Your task to perform on an android device: turn off notifications in google photos Image 0: 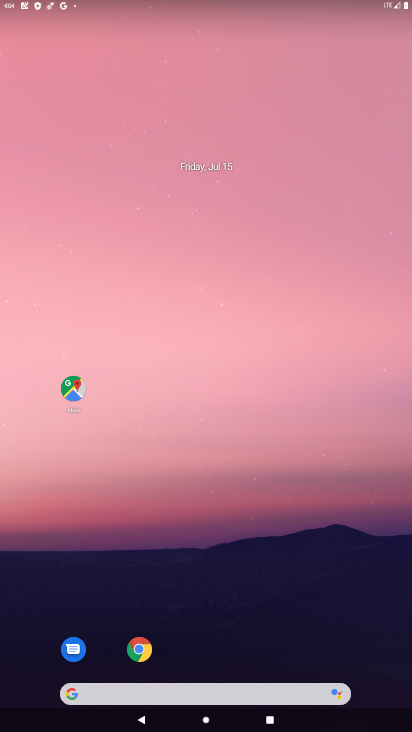
Step 0: drag from (213, 454) to (188, 178)
Your task to perform on an android device: turn off notifications in google photos Image 1: 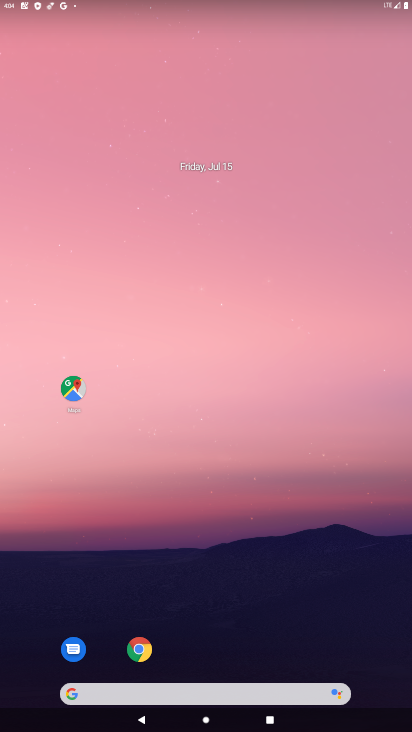
Step 1: drag from (204, 647) to (155, 121)
Your task to perform on an android device: turn off notifications in google photos Image 2: 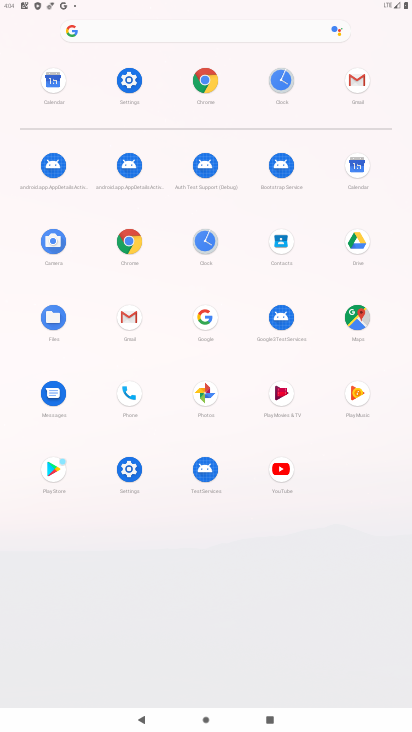
Step 2: click (207, 392)
Your task to perform on an android device: turn off notifications in google photos Image 3: 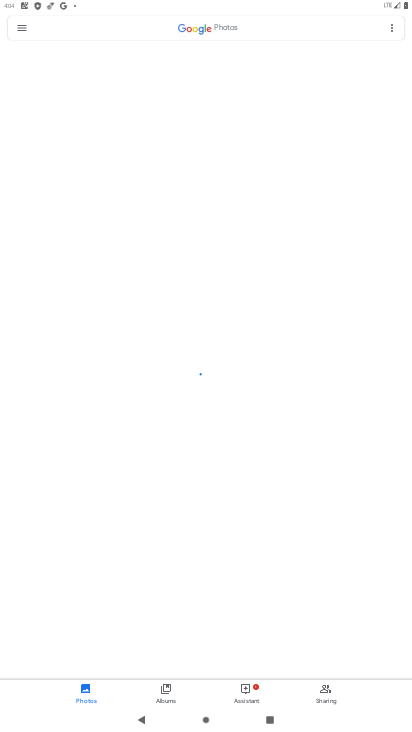
Step 3: click (23, 30)
Your task to perform on an android device: turn off notifications in google photos Image 4: 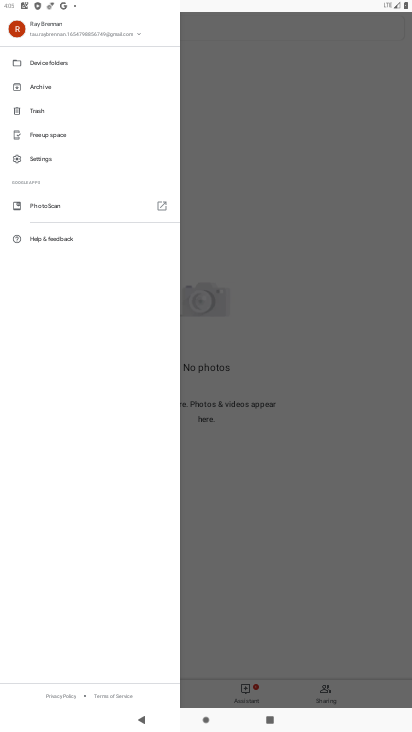
Step 4: click (33, 155)
Your task to perform on an android device: turn off notifications in google photos Image 5: 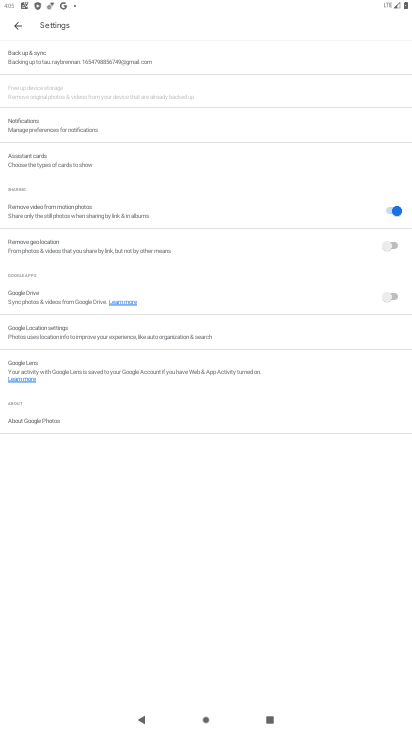
Step 5: click (15, 21)
Your task to perform on an android device: turn off notifications in google photos Image 6: 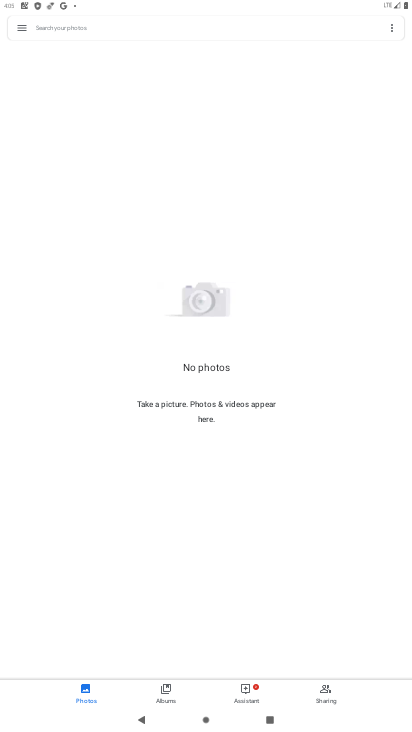
Step 6: click (19, 27)
Your task to perform on an android device: turn off notifications in google photos Image 7: 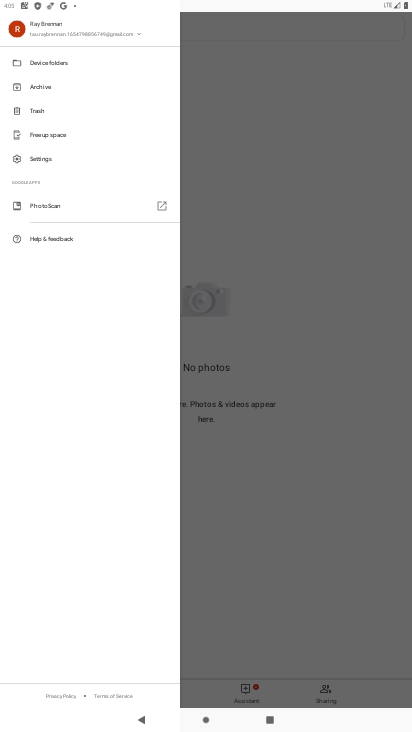
Step 7: click (29, 160)
Your task to perform on an android device: turn off notifications in google photos Image 8: 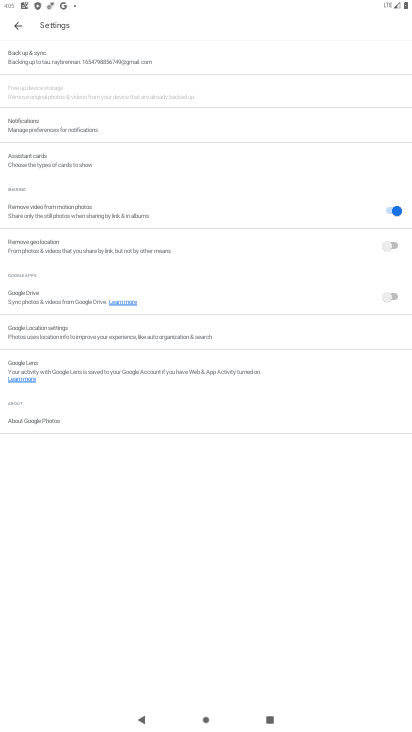
Step 8: click (42, 135)
Your task to perform on an android device: turn off notifications in google photos Image 9: 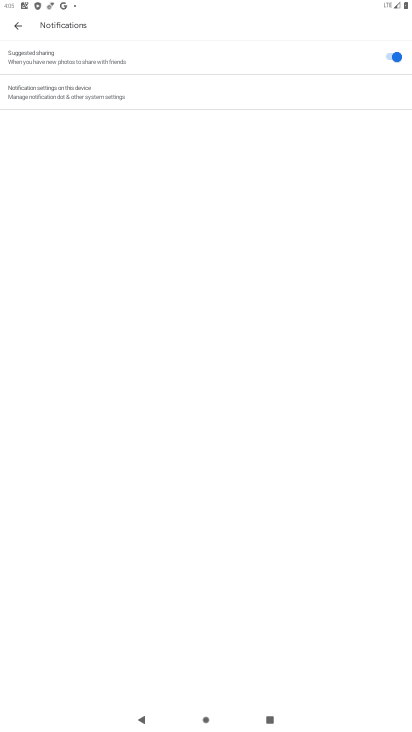
Step 9: click (384, 57)
Your task to perform on an android device: turn off notifications in google photos Image 10: 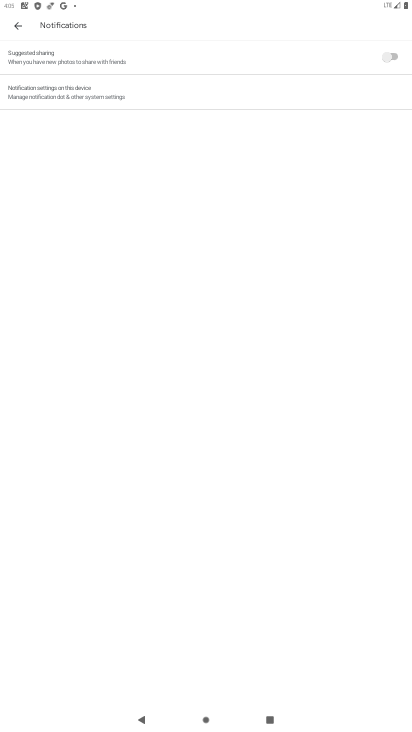
Step 10: task complete